Your task to perform on an android device: Do I have any events tomorrow? Image 0: 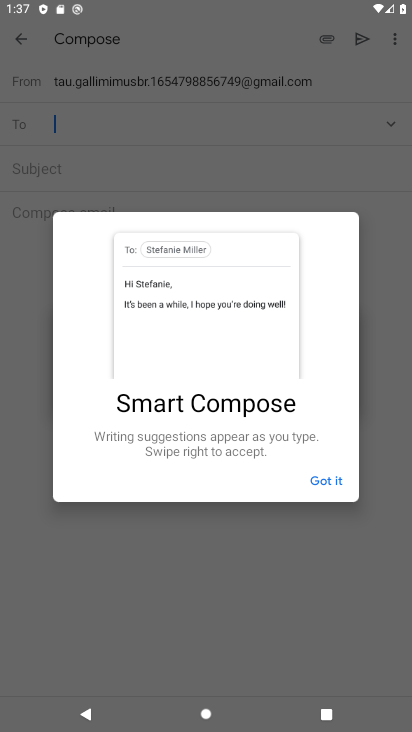
Step 0: press home button
Your task to perform on an android device: Do I have any events tomorrow? Image 1: 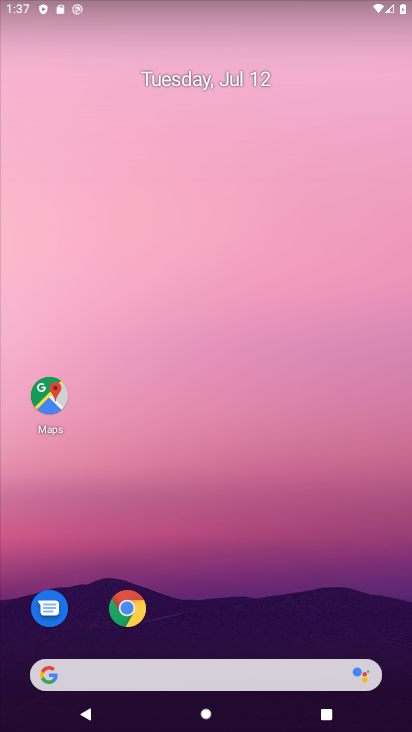
Step 1: drag from (273, 568) to (215, 88)
Your task to perform on an android device: Do I have any events tomorrow? Image 2: 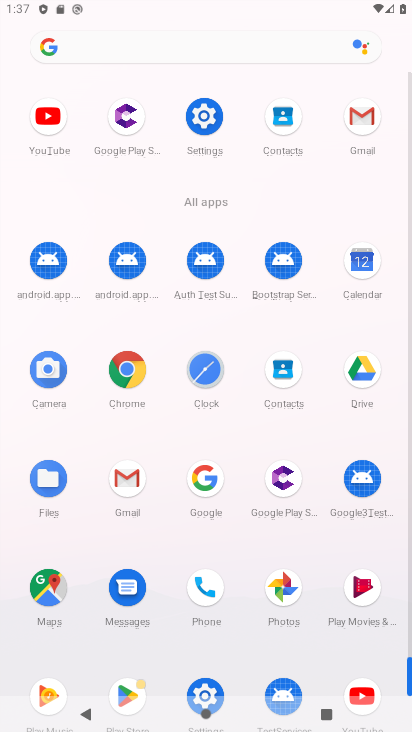
Step 2: click (372, 262)
Your task to perform on an android device: Do I have any events tomorrow? Image 3: 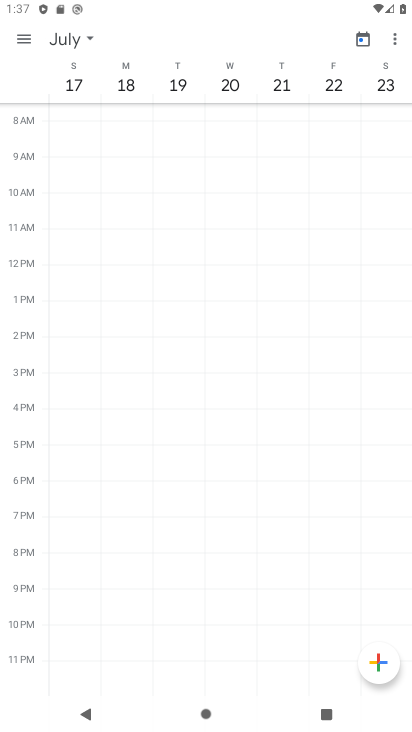
Step 3: drag from (99, 81) to (411, 76)
Your task to perform on an android device: Do I have any events tomorrow? Image 4: 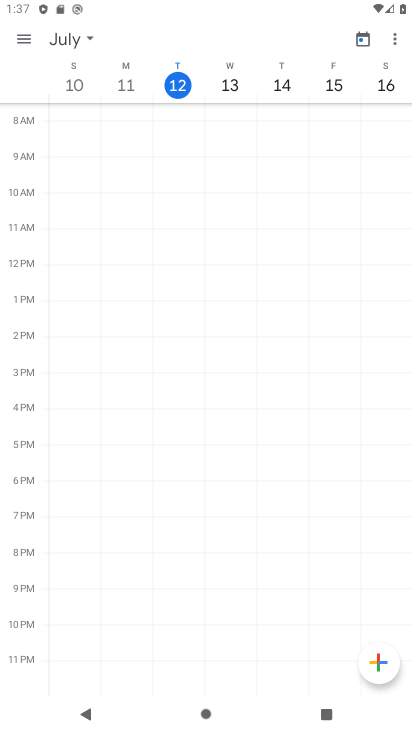
Step 4: click (229, 90)
Your task to perform on an android device: Do I have any events tomorrow? Image 5: 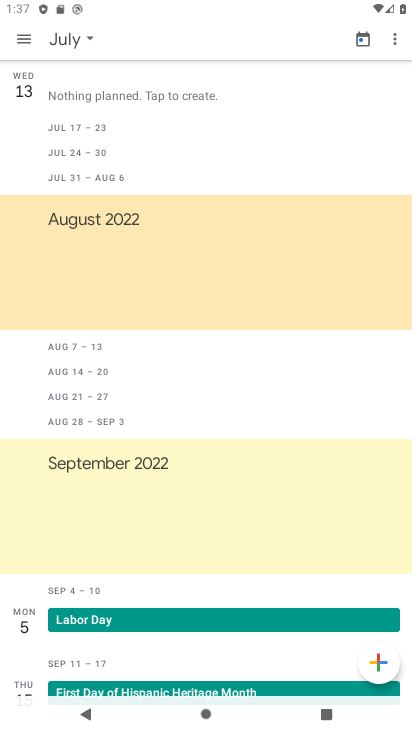
Step 5: task complete